Your task to perform on an android device: toggle improve location accuracy Image 0: 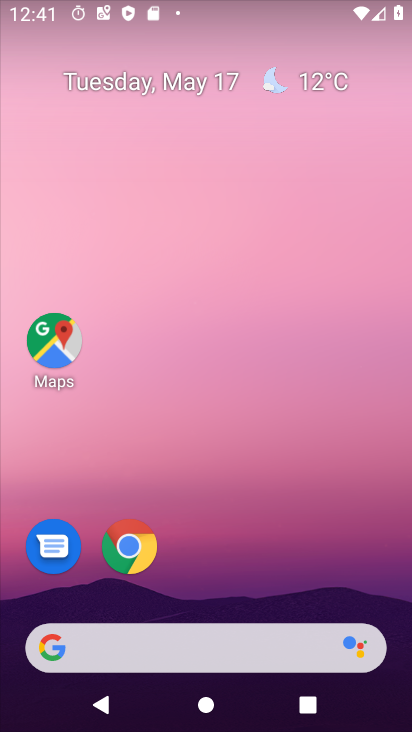
Step 0: drag from (193, 634) to (281, 96)
Your task to perform on an android device: toggle improve location accuracy Image 1: 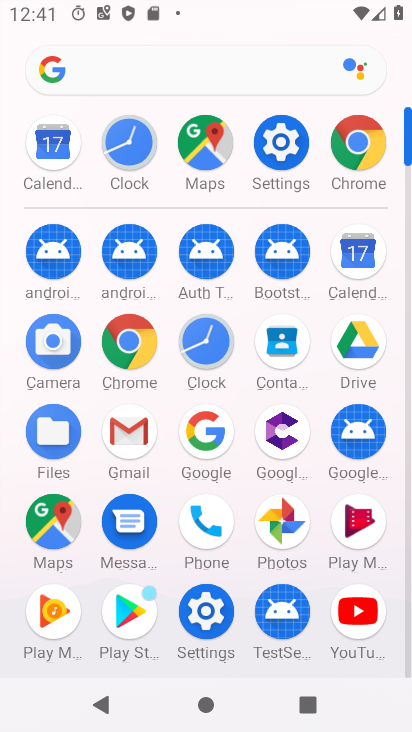
Step 1: click (286, 151)
Your task to perform on an android device: toggle improve location accuracy Image 2: 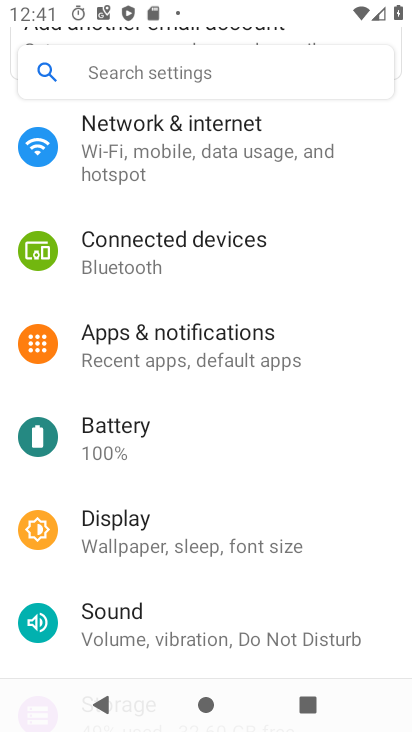
Step 2: drag from (206, 601) to (301, 68)
Your task to perform on an android device: toggle improve location accuracy Image 3: 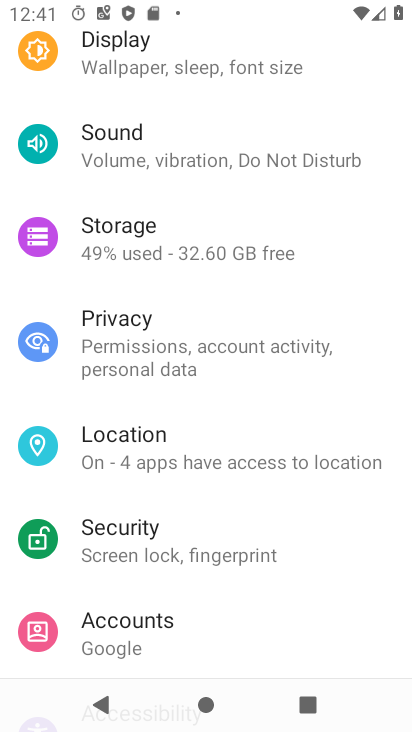
Step 3: click (154, 444)
Your task to perform on an android device: toggle improve location accuracy Image 4: 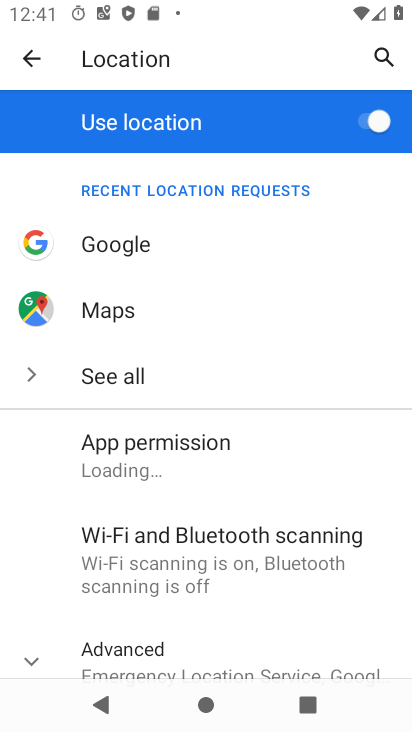
Step 4: drag from (178, 615) to (249, 343)
Your task to perform on an android device: toggle improve location accuracy Image 5: 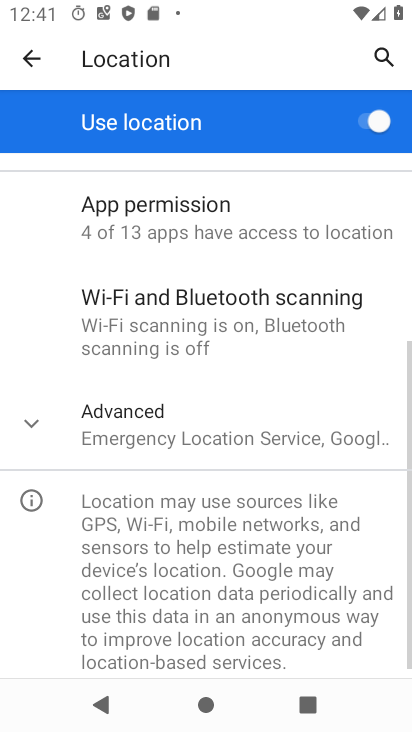
Step 5: click (185, 458)
Your task to perform on an android device: toggle improve location accuracy Image 6: 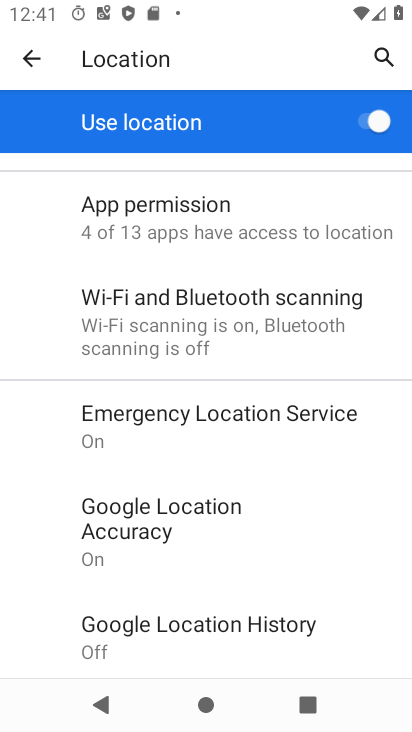
Step 6: click (175, 522)
Your task to perform on an android device: toggle improve location accuracy Image 7: 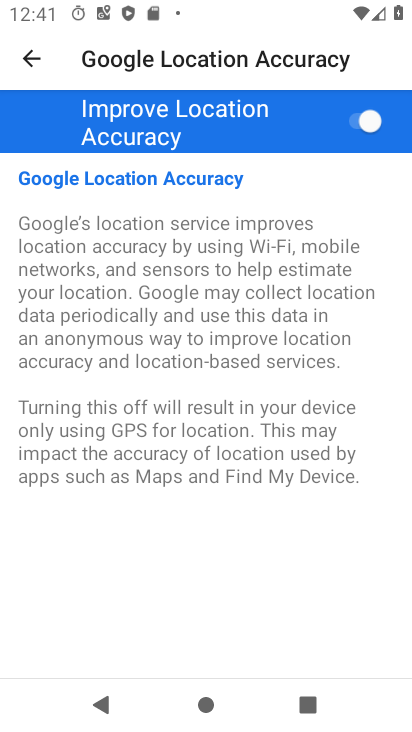
Step 7: click (357, 120)
Your task to perform on an android device: toggle improve location accuracy Image 8: 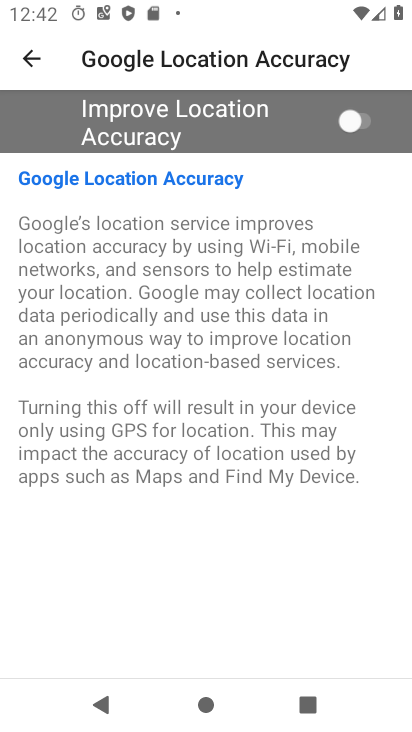
Step 8: task complete